Your task to perform on an android device: turn off data saver in the chrome app Image 0: 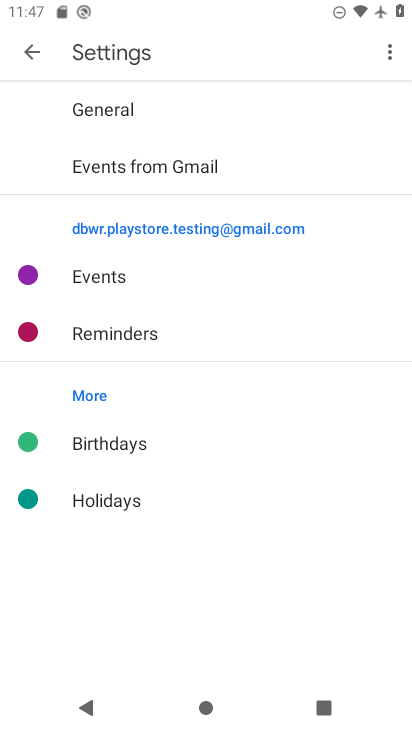
Step 0: press home button
Your task to perform on an android device: turn off data saver in the chrome app Image 1: 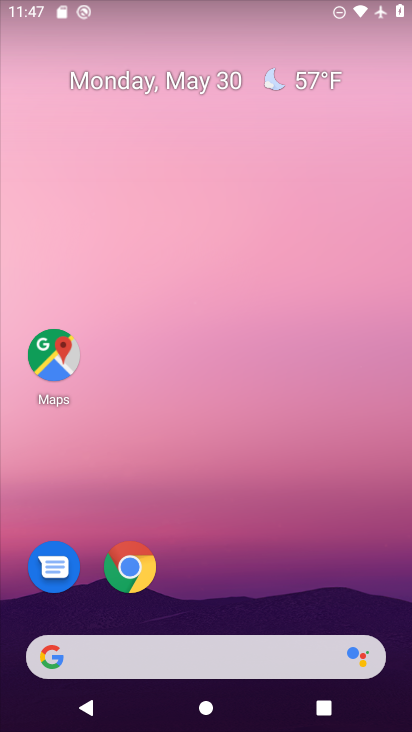
Step 1: click (125, 582)
Your task to perform on an android device: turn off data saver in the chrome app Image 2: 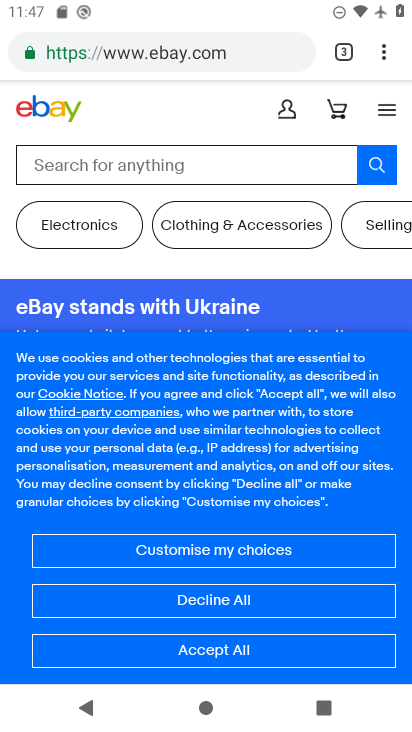
Step 2: click (379, 53)
Your task to perform on an android device: turn off data saver in the chrome app Image 3: 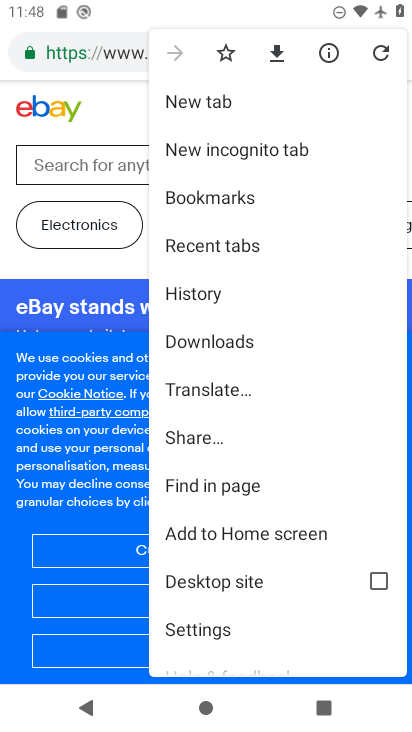
Step 3: click (215, 623)
Your task to perform on an android device: turn off data saver in the chrome app Image 4: 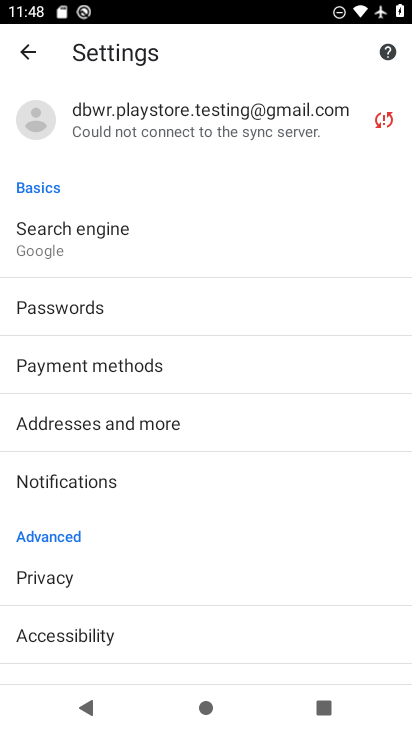
Step 4: drag from (223, 526) to (230, 274)
Your task to perform on an android device: turn off data saver in the chrome app Image 5: 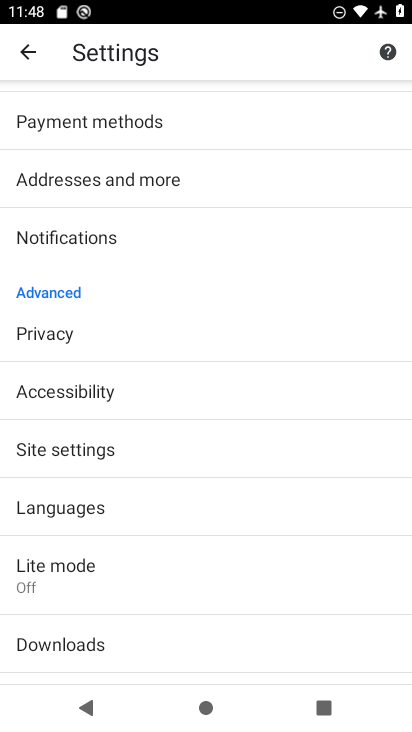
Step 5: click (116, 577)
Your task to perform on an android device: turn off data saver in the chrome app Image 6: 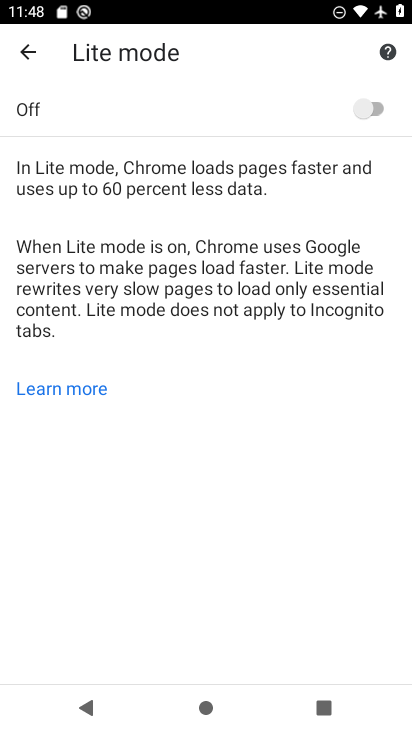
Step 6: task complete